Your task to perform on an android device: stop showing notifications on the lock screen Image 0: 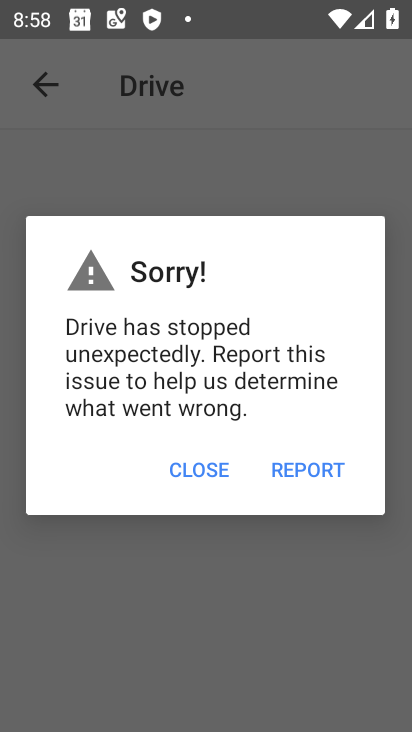
Step 0: press home button
Your task to perform on an android device: stop showing notifications on the lock screen Image 1: 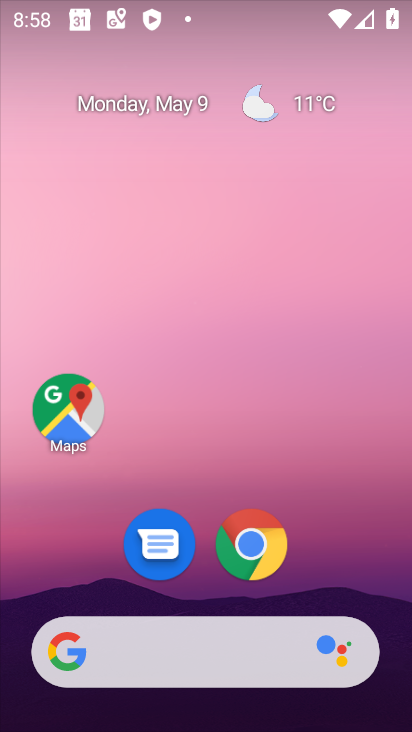
Step 1: drag from (397, 634) to (383, 201)
Your task to perform on an android device: stop showing notifications on the lock screen Image 2: 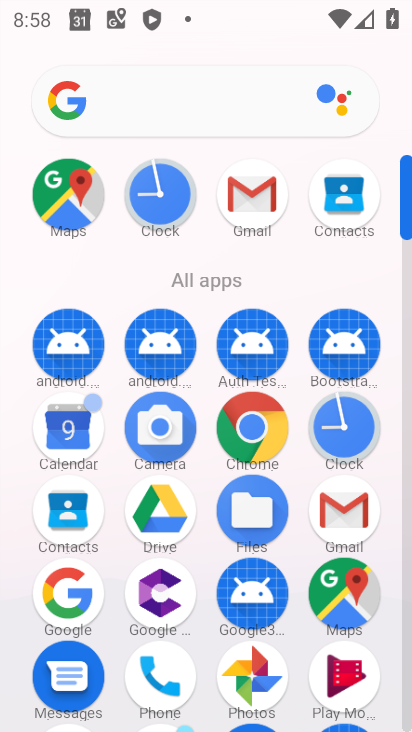
Step 2: press home button
Your task to perform on an android device: stop showing notifications on the lock screen Image 3: 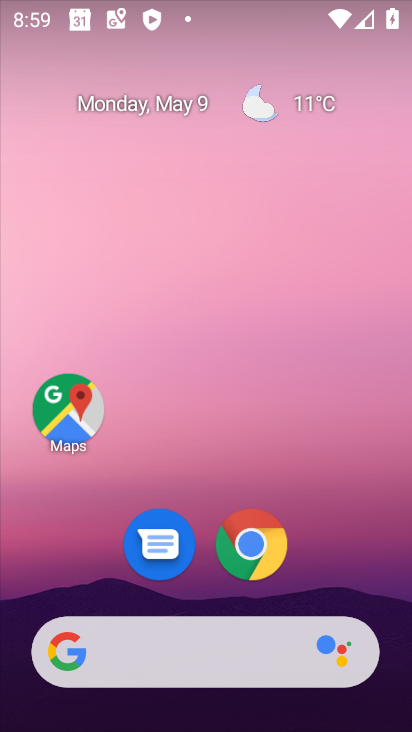
Step 3: drag from (395, 628) to (346, 151)
Your task to perform on an android device: stop showing notifications on the lock screen Image 4: 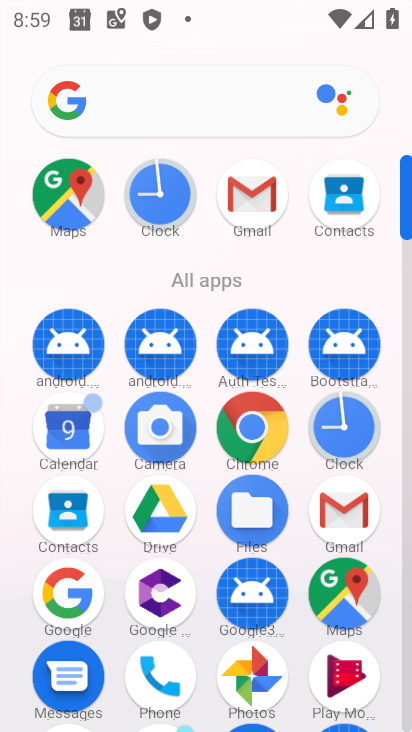
Step 4: drag from (410, 172) to (410, 34)
Your task to perform on an android device: stop showing notifications on the lock screen Image 5: 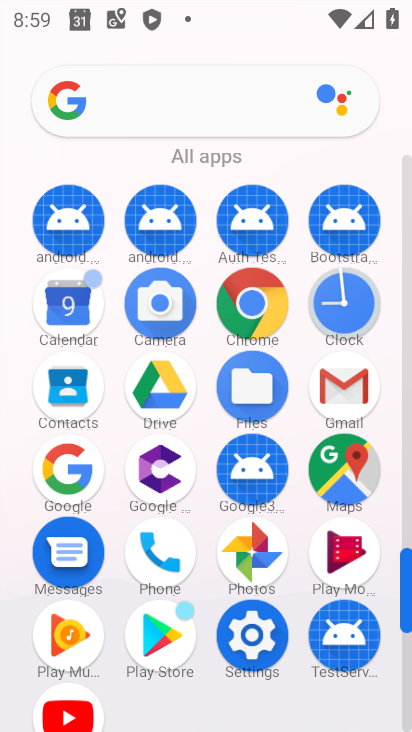
Step 5: click (251, 670)
Your task to perform on an android device: stop showing notifications on the lock screen Image 6: 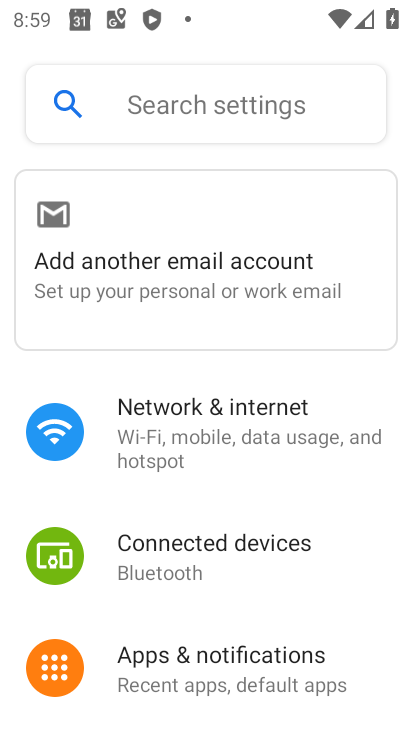
Step 6: click (171, 658)
Your task to perform on an android device: stop showing notifications on the lock screen Image 7: 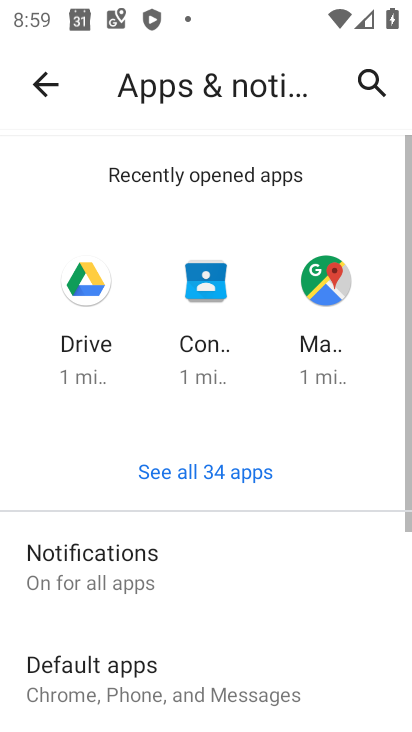
Step 7: click (98, 563)
Your task to perform on an android device: stop showing notifications on the lock screen Image 8: 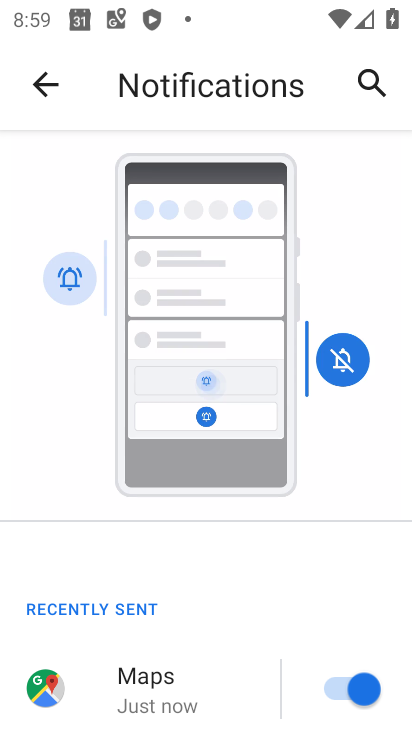
Step 8: drag from (255, 685) to (257, 323)
Your task to perform on an android device: stop showing notifications on the lock screen Image 9: 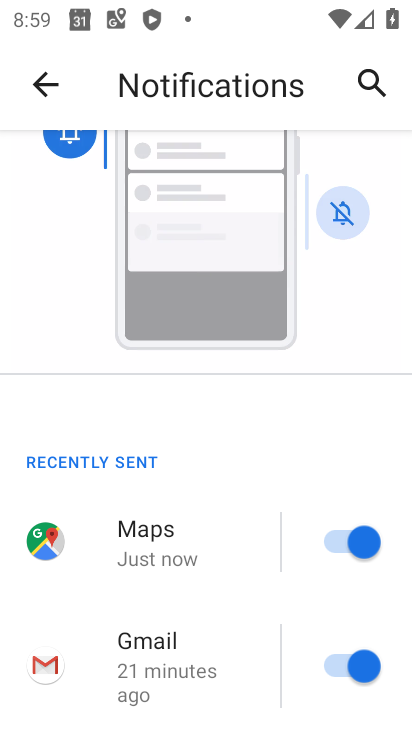
Step 9: drag from (249, 711) to (296, 381)
Your task to perform on an android device: stop showing notifications on the lock screen Image 10: 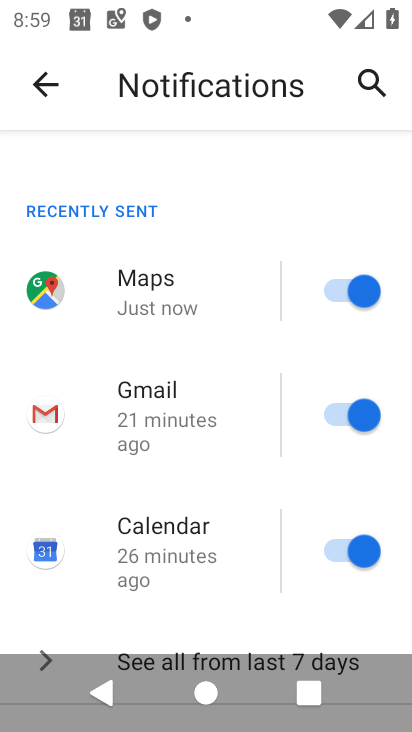
Step 10: drag from (268, 552) to (266, 323)
Your task to perform on an android device: stop showing notifications on the lock screen Image 11: 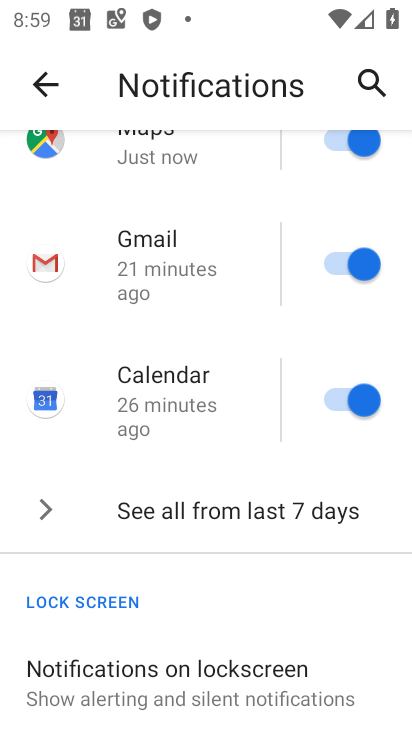
Step 11: click (201, 683)
Your task to perform on an android device: stop showing notifications on the lock screen Image 12: 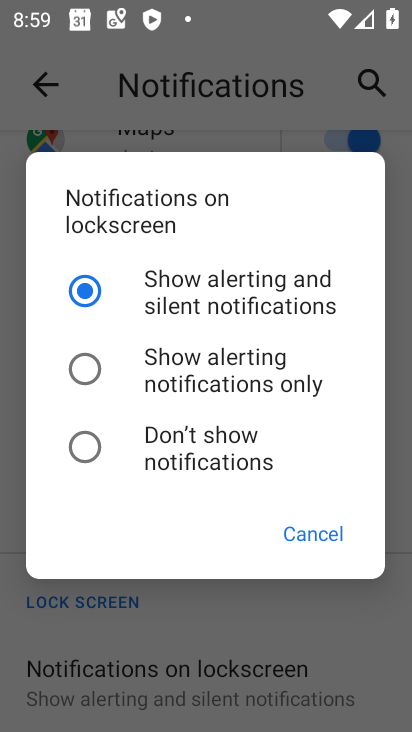
Step 12: click (91, 440)
Your task to perform on an android device: stop showing notifications on the lock screen Image 13: 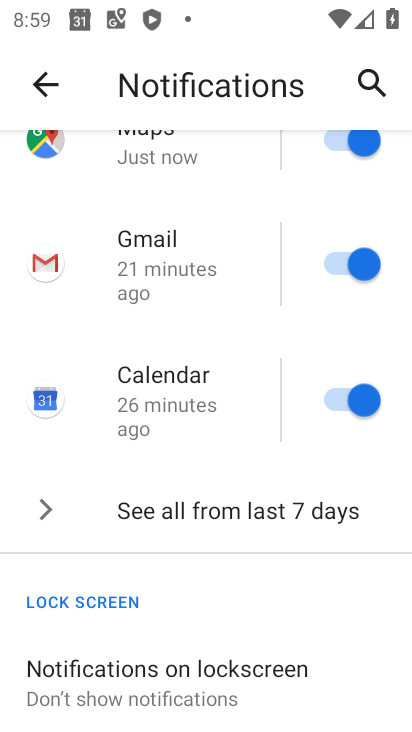
Step 13: task complete